Your task to perform on an android device: Open Google Maps Image 0: 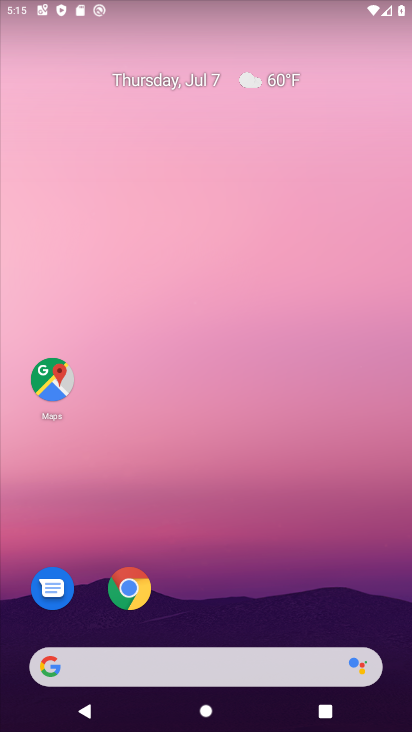
Step 0: drag from (253, 604) to (280, 13)
Your task to perform on an android device: Open Google Maps Image 1: 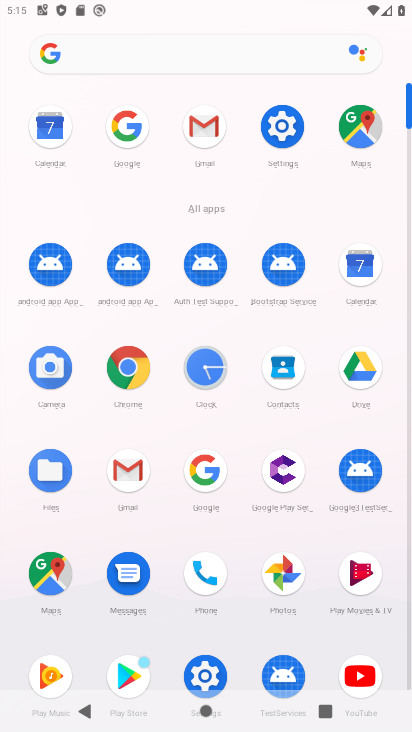
Step 1: click (338, 125)
Your task to perform on an android device: Open Google Maps Image 2: 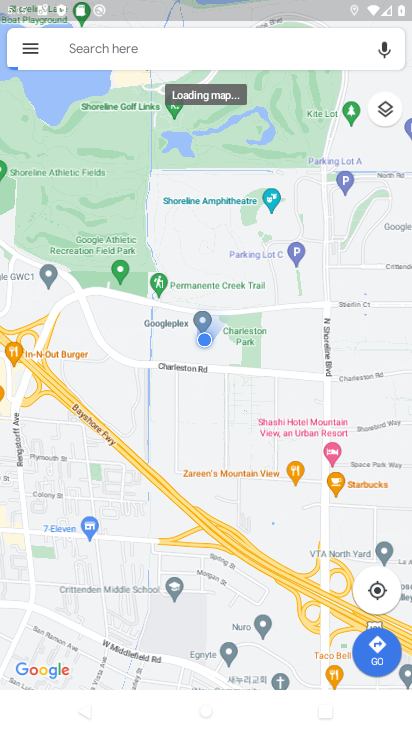
Step 2: task complete